Your task to perform on an android device: change notification settings in the gmail app Image 0: 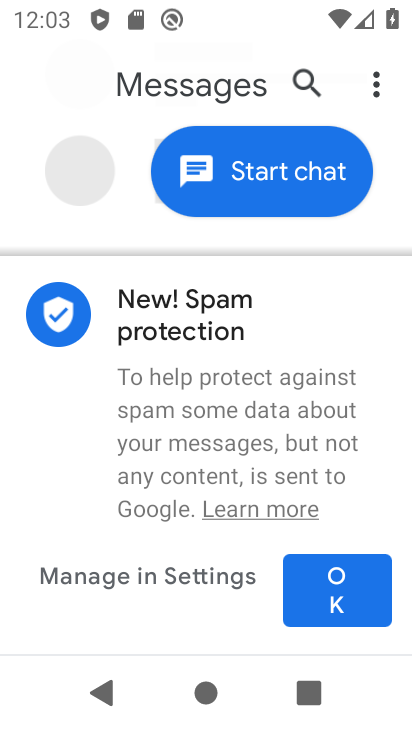
Step 0: press home button
Your task to perform on an android device: change notification settings in the gmail app Image 1: 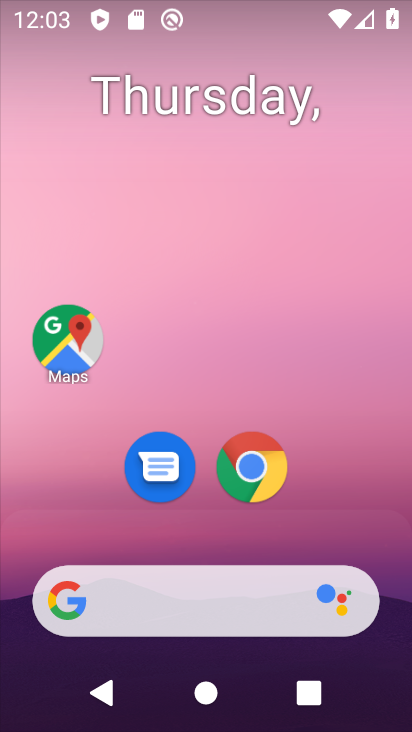
Step 1: click (392, 325)
Your task to perform on an android device: change notification settings in the gmail app Image 2: 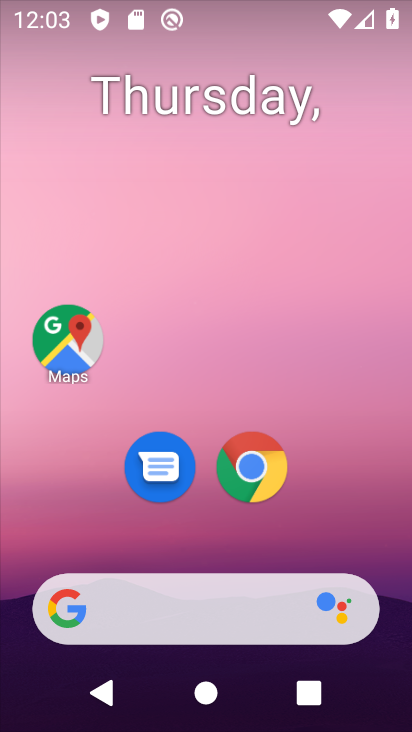
Step 2: drag from (330, 277) to (318, 170)
Your task to perform on an android device: change notification settings in the gmail app Image 3: 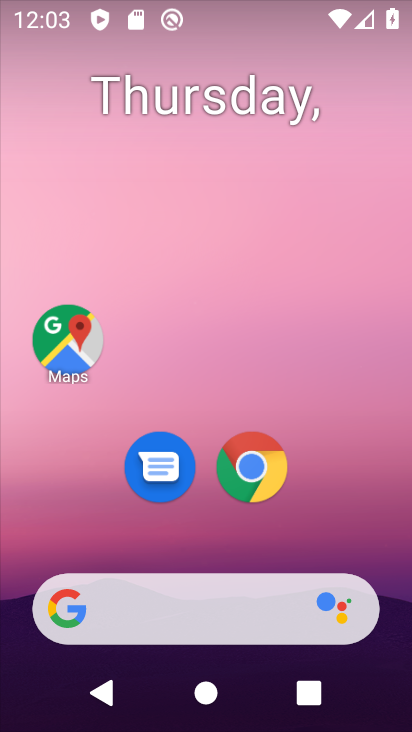
Step 3: drag from (393, 656) to (394, 145)
Your task to perform on an android device: change notification settings in the gmail app Image 4: 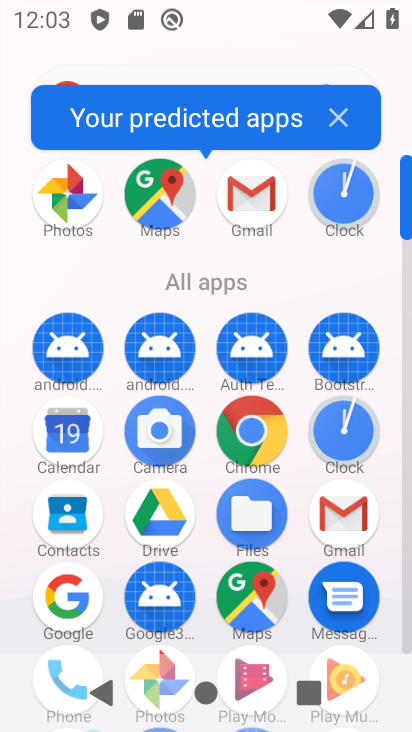
Step 4: click (349, 511)
Your task to perform on an android device: change notification settings in the gmail app Image 5: 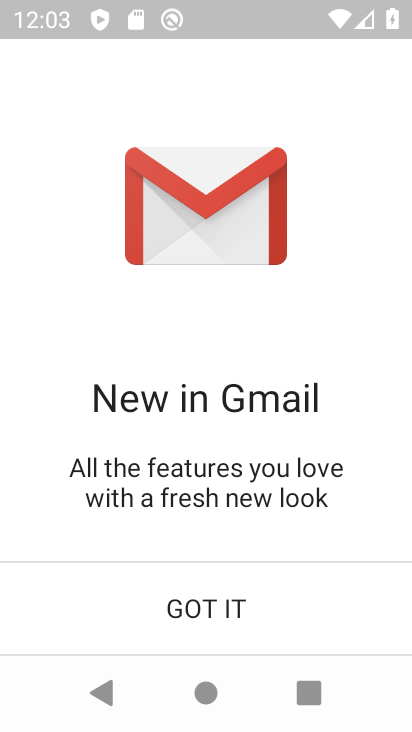
Step 5: click (221, 610)
Your task to perform on an android device: change notification settings in the gmail app Image 6: 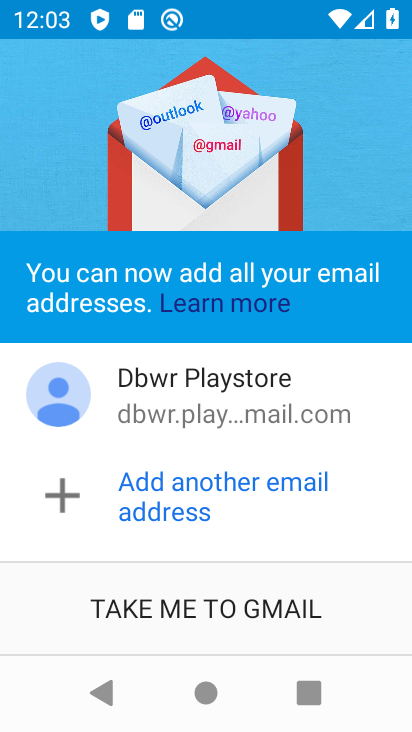
Step 6: click (221, 609)
Your task to perform on an android device: change notification settings in the gmail app Image 7: 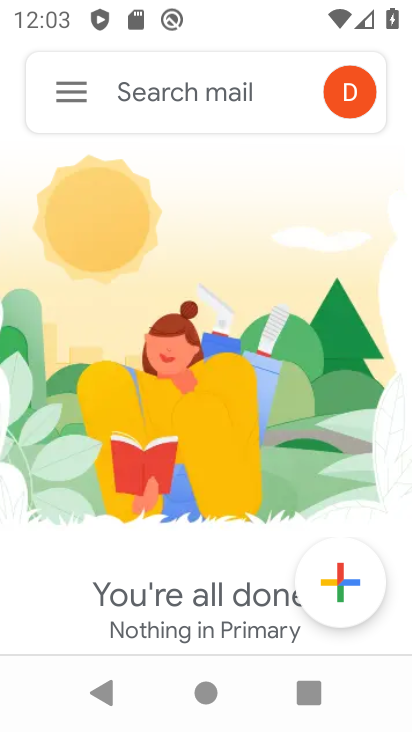
Step 7: click (79, 65)
Your task to perform on an android device: change notification settings in the gmail app Image 8: 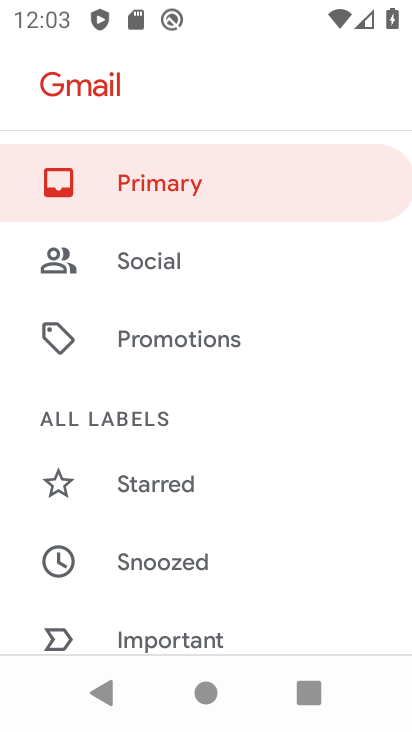
Step 8: drag from (306, 511) to (323, 291)
Your task to perform on an android device: change notification settings in the gmail app Image 9: 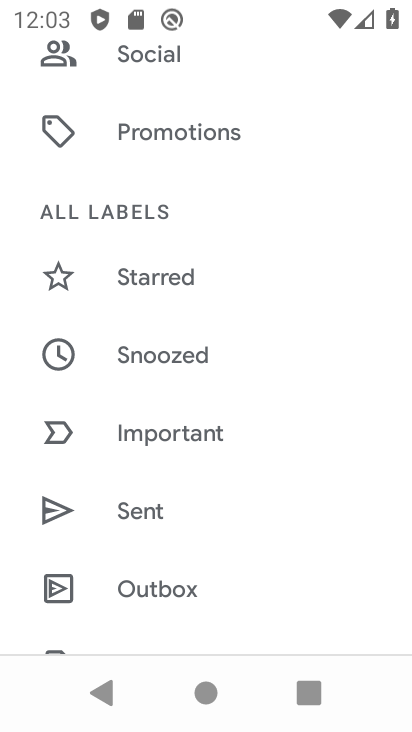
Step 9: drag from (309, 621) to (301, 347)
Your task to perform on an android device: change notification settings in the gmail app Image 10: 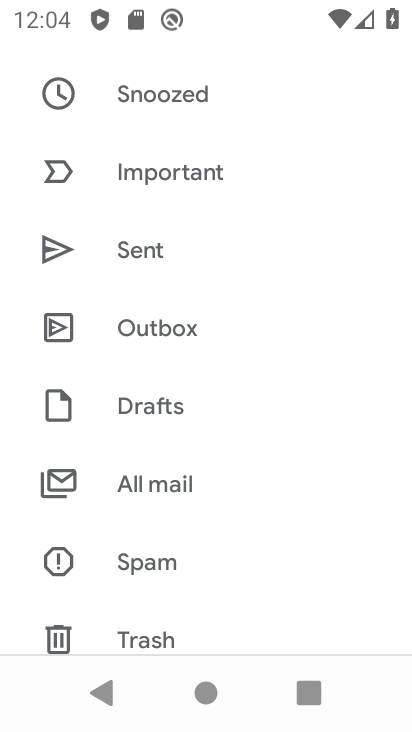
Step 10: drag from (298, 611) to (317, 318)
Your task to perform on an android device: change notification settings in the gmail app Image 11: 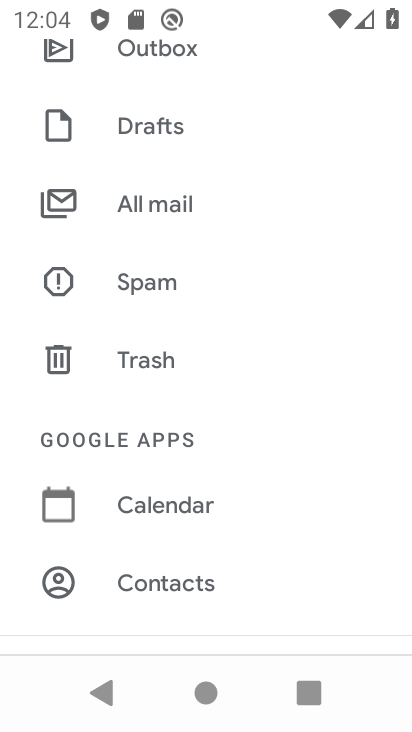
Step 11: drag from (266, 581) to (264, 309)
Your task to perform on an android device: change notification settings in the gmail app Image 12: 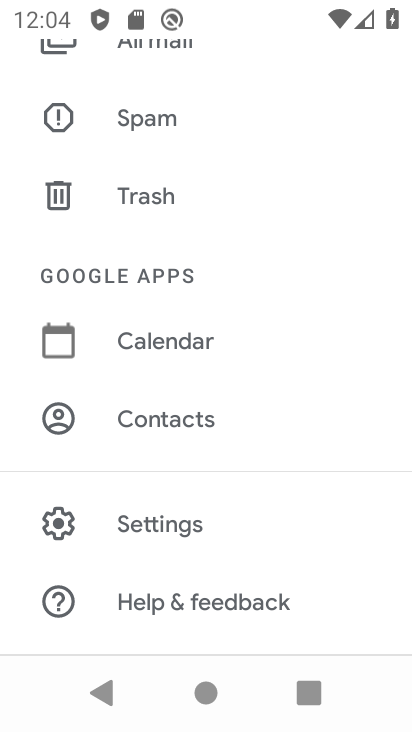
Step 12: click (143, 521)
Your task to perform on an android device: change notification settings in the gmail app Image 13: 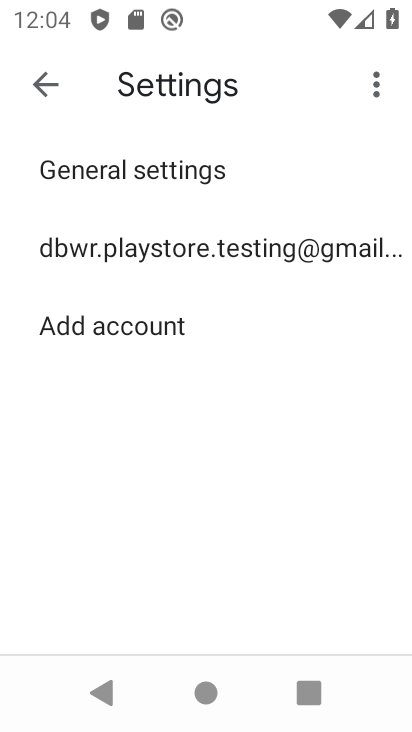
Step 13: click (68, 173)
Your task to perform on an android device: change notification settings in the gmail app Image 14: 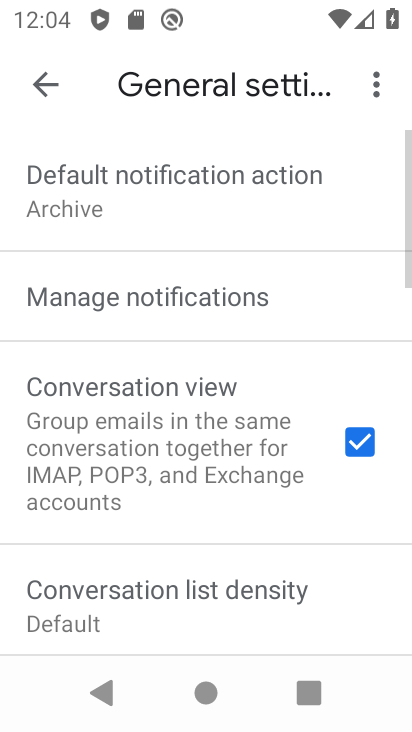
Step 14: click (101, 295)
Your task to perform on an android device: change notification settings in the gmail app Image 15: 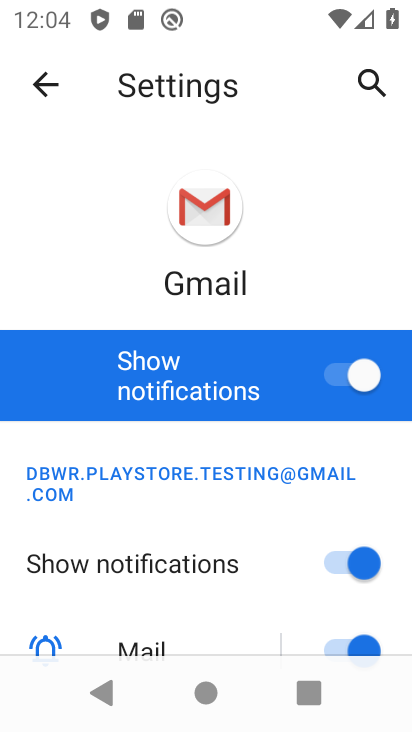
Step 15: click (332, 377)
Your task to perform on an android device: change notification settings in the gmail app Image 16: 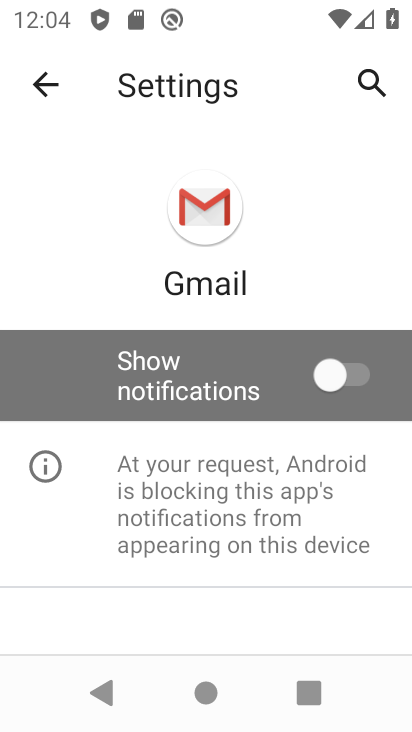
Step 16: task complete